Your task to perform on an android device: Open Reddit.com Image 0: 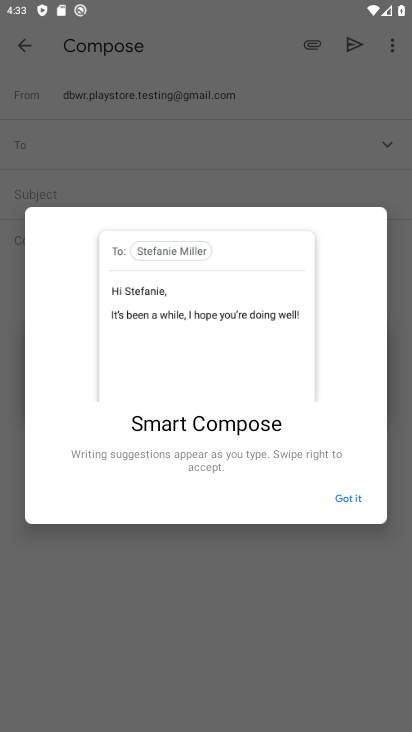
Step 0: press back button
Your task to perform on an android device: Open Reddit.com Image 1: 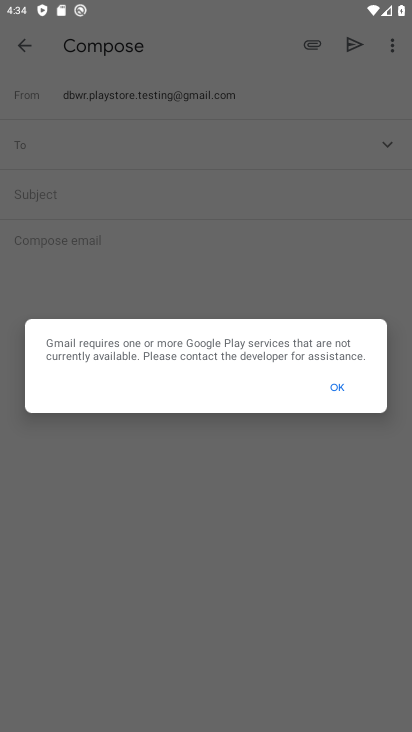
Step 1: press home button
Your task to perform on an android device: Open Reddit.com Image 2: 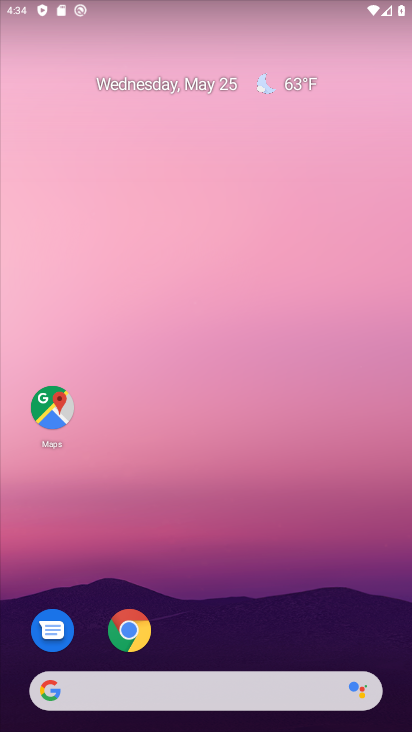
Step 2: click (135, 627)
Your task to perform on an android device: Open Reddit.com Image 3: 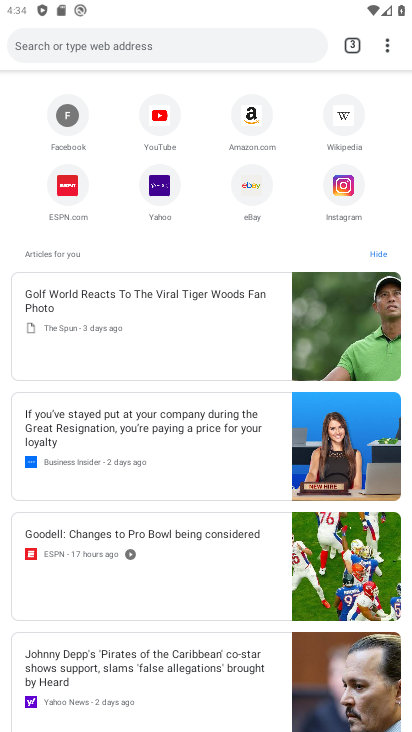
Step 3: click (96, 46)
Your task to perform on an android device: Open Reddit.com Image 4: 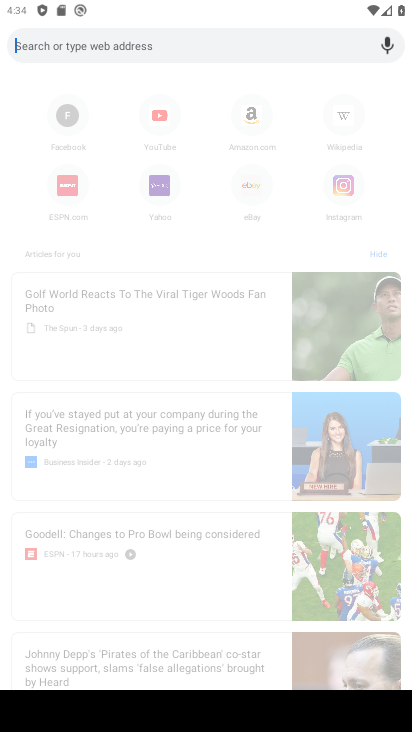
Step 4: click (108, 48)
Your task to perform on an android device: Open Reddit.com Image 5: 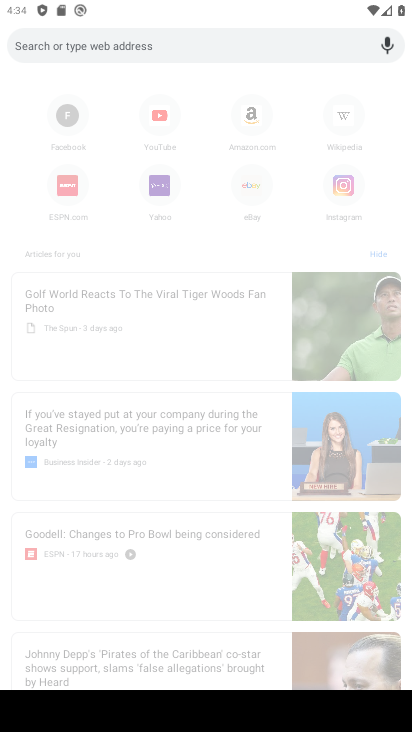
Step 5: type "reddit.com"
Your task to perform on an android device: Open Reddit.com Image 6: 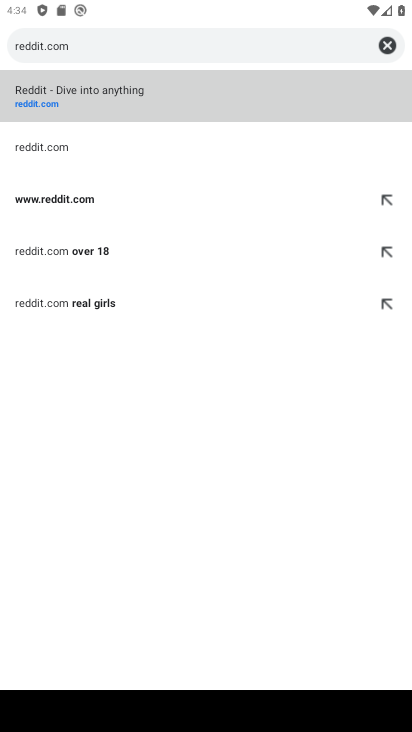
Step 6: click (94, 98)
Your task to perform on an android device: Open Reddit.com Image 7: 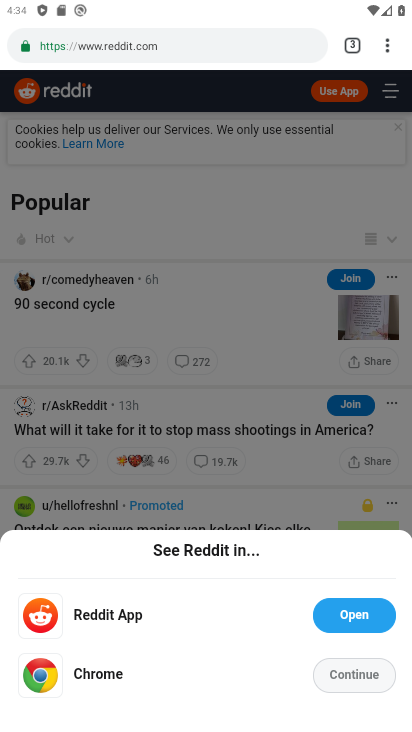
Step 7: task complete